Your task to perform on an android device: Search for vegetarian restaurants on Maps Image 0: 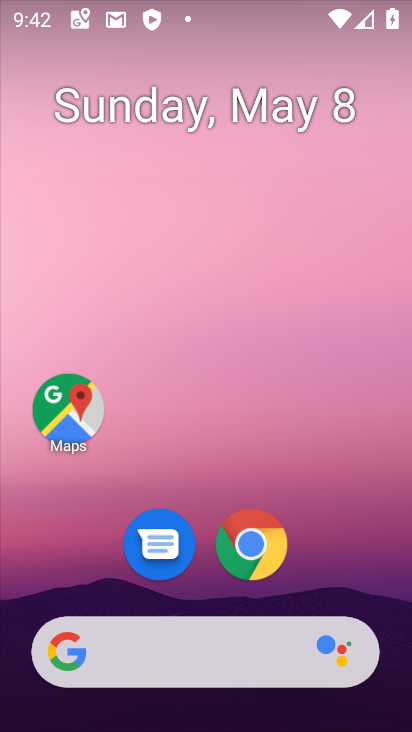
Step 0: click (267, 562)
Your task to perform on an android device: Search for vegetarian restaurants on Maps Image 1: 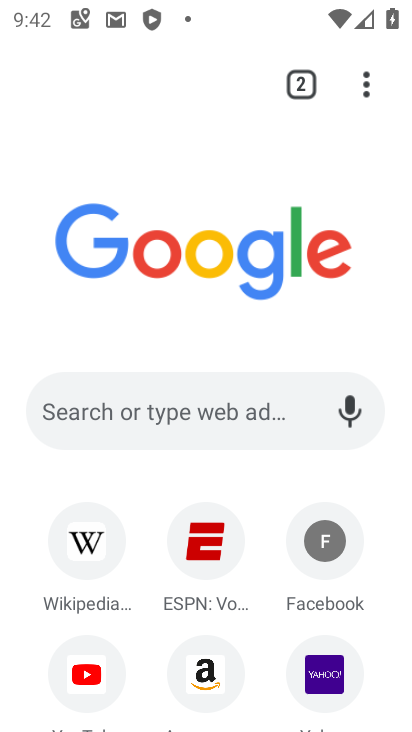
Step 1: press home button
Your task to perform on an android device: Search for vegetarian restaurants on Maps Image 2: 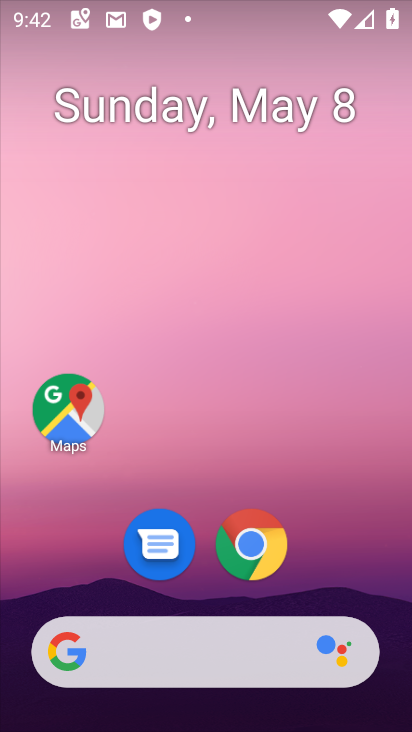
Step 2: click (67, 417)
Your task to perform on an android device: Search for vegetarian restaurants on Maps Image 3: 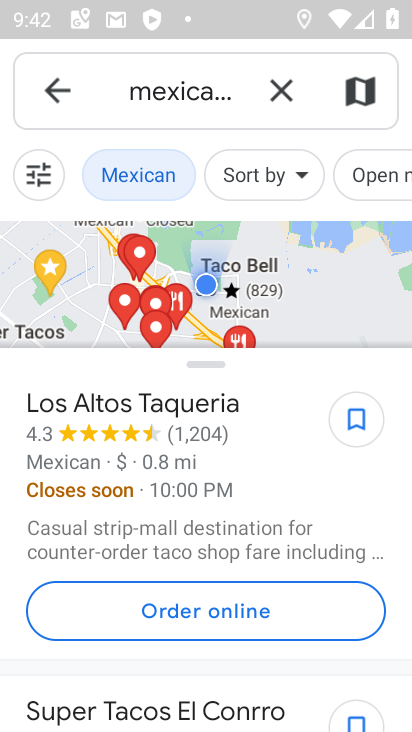
Step 3: click (279, 95)
Your task to perform on an android device: Search for vegetarian restaurants on Maps Image 4: 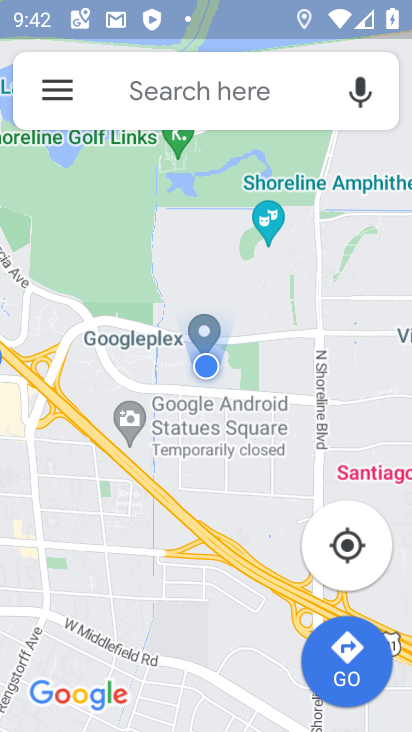
Step 4: click (279, 95)
Your task to perform on an android device: Search for vegetarian restaurants on Maps Image 5: 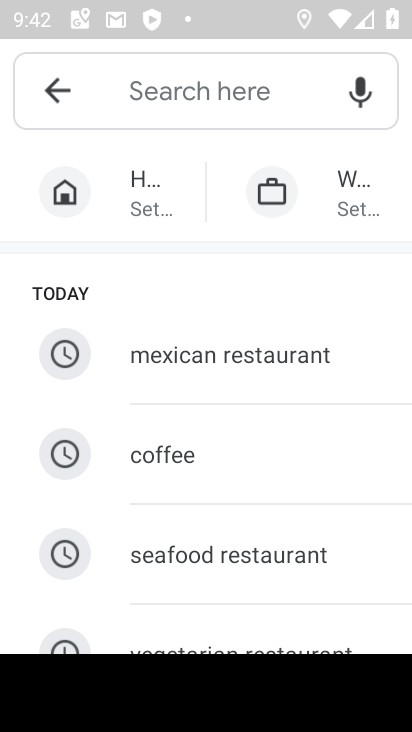
Step 5: click (231, 630)
Your task to perform on an android device: Search for vegetarian restaurants on Maps Image 6: 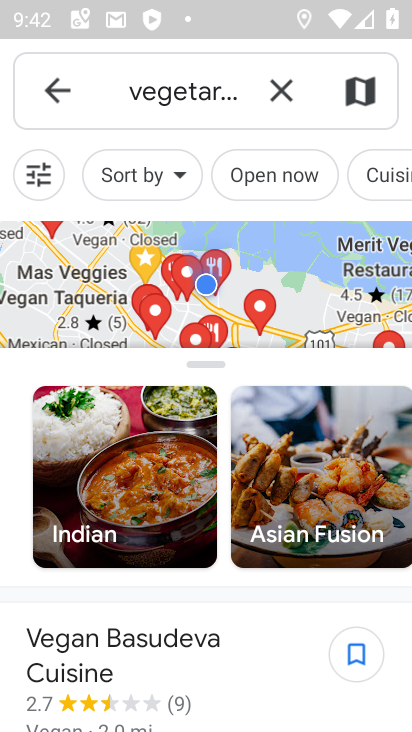
Step 6: task complete